Your task to perform on an android device: Open network settings Image 0: 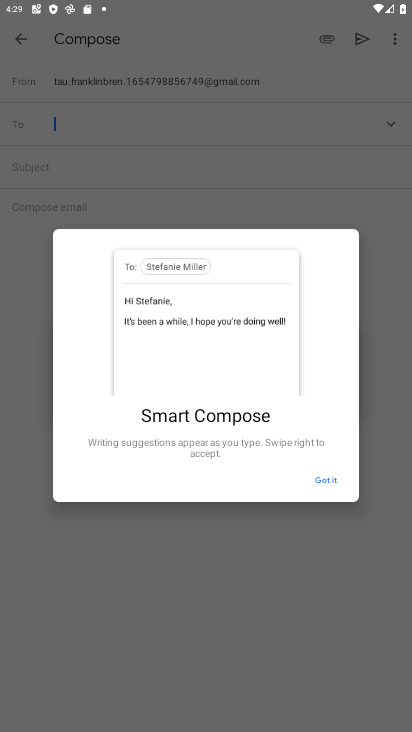
Step 0: press home button
Your task to perform on an android device: Open network settings Image 1: 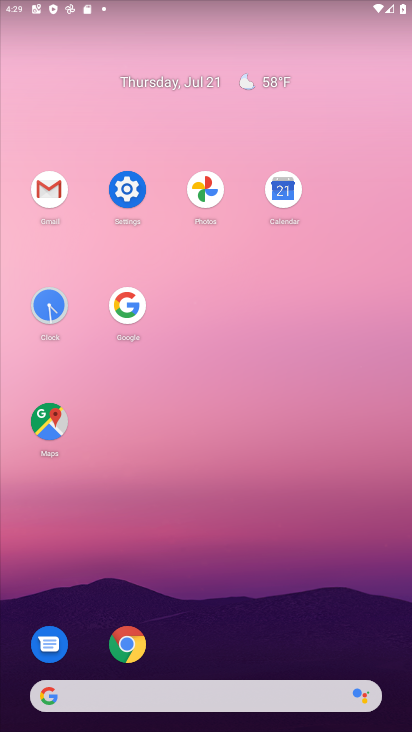
Step 1: click (122, 181)
Your task to perform on an android device: Open network settings Image 2: 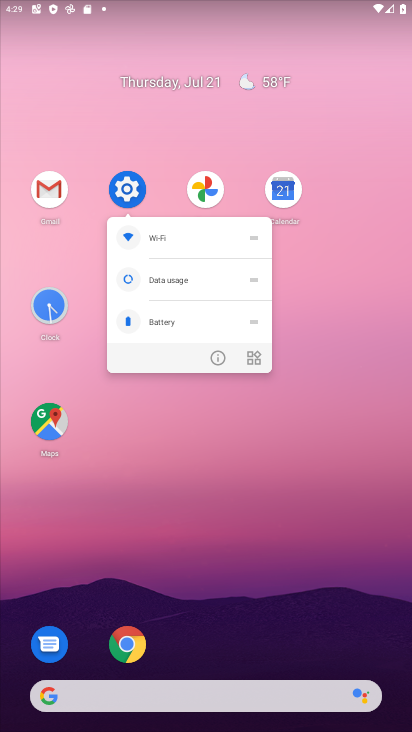
Step 2: click (126, 182)
Your task to perform on an android device: Open network settings Image 3: 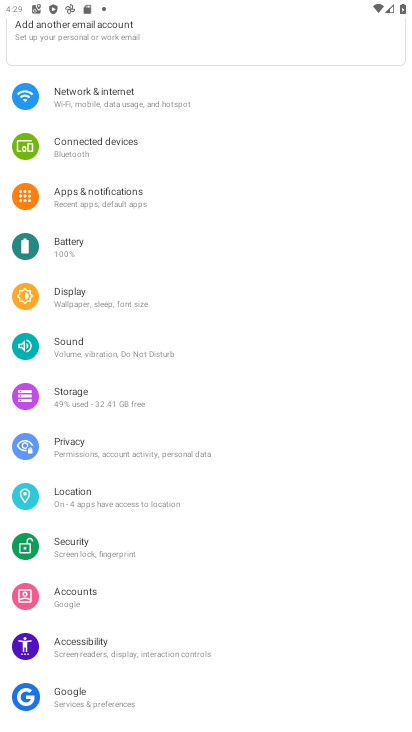
Step 3: click (131, 100)
Your task to perform on an android device: Open network settings Image 4: 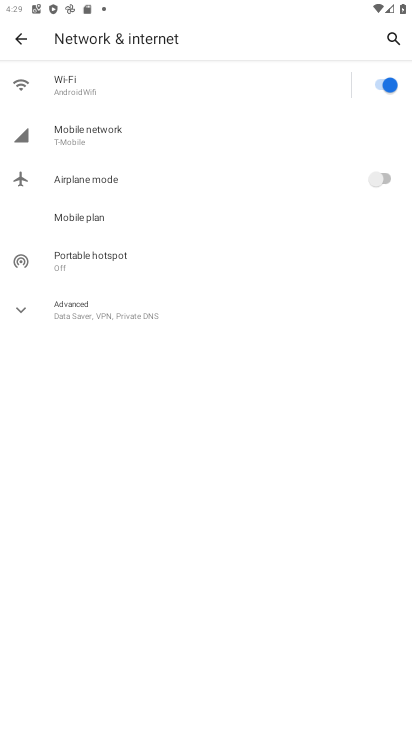
Step 4: task complete